Your task to perform on an android device: set default search engine in the chrome app Image 0: 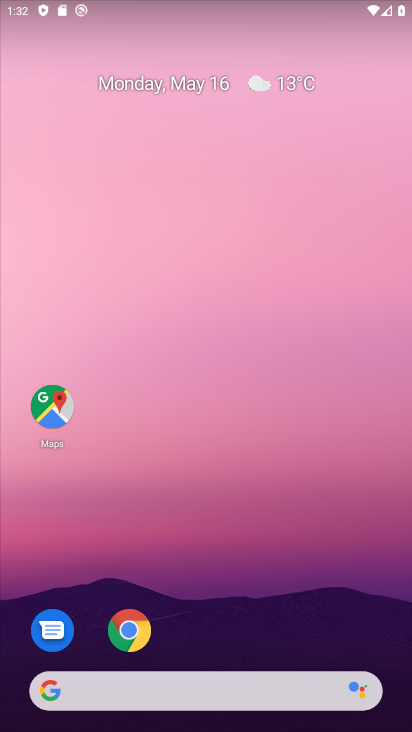
Step 0: click (133, 644)
Your task to perform on an android device: set default search engine in the chrome app Image 1: 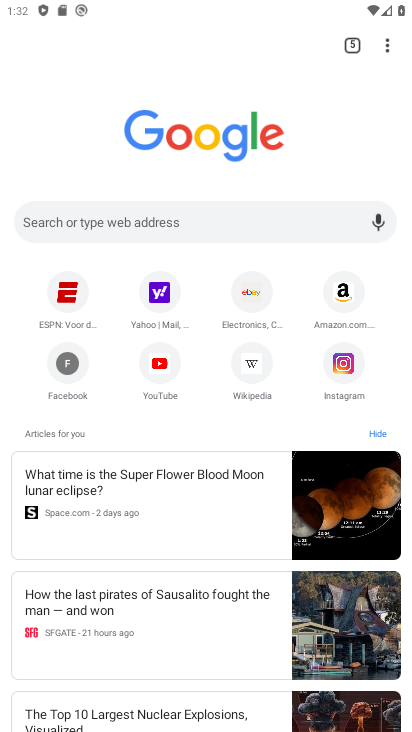
Step 1: click (389, 45)
Your task to perform on an android device: set default search engine in the chrome app Image 2: 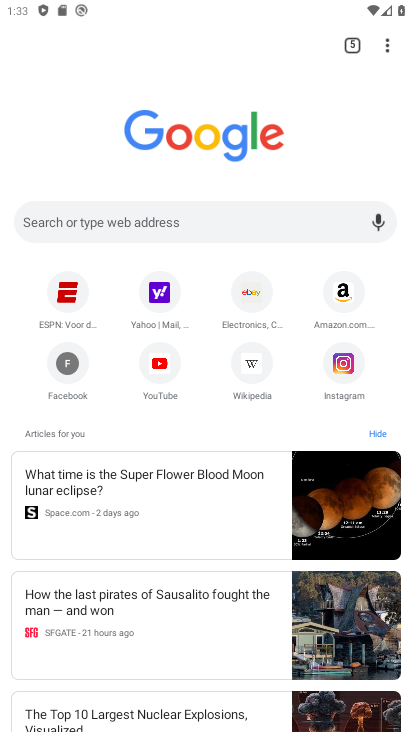
Step 2: click (382, 48)
Your task to perform on an android device: set default search engine in the chrome app Image 3: 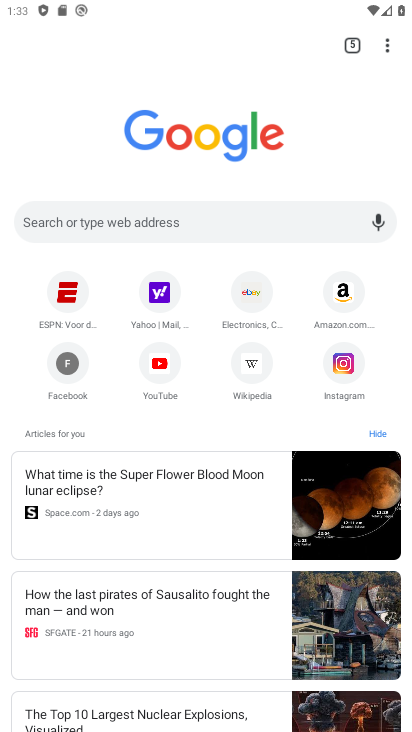
Step 3: click (383, 48)
Your task to perform on an android device: set default search engine in the chrome app Image 4: 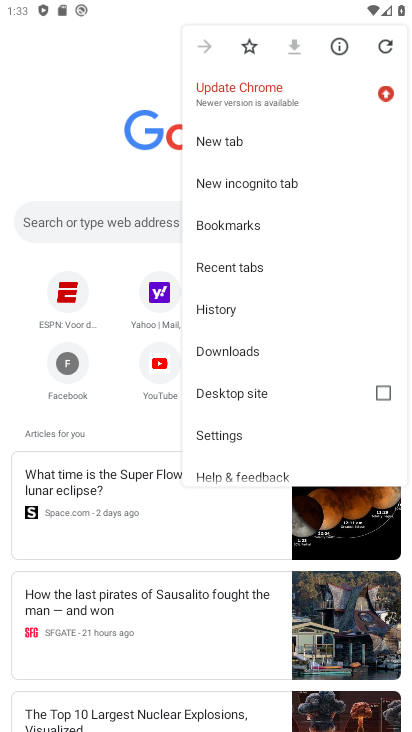
Step 4: click (271, 430)
Your task to perform on an android device: set default search engine in the chrome app Image 5: 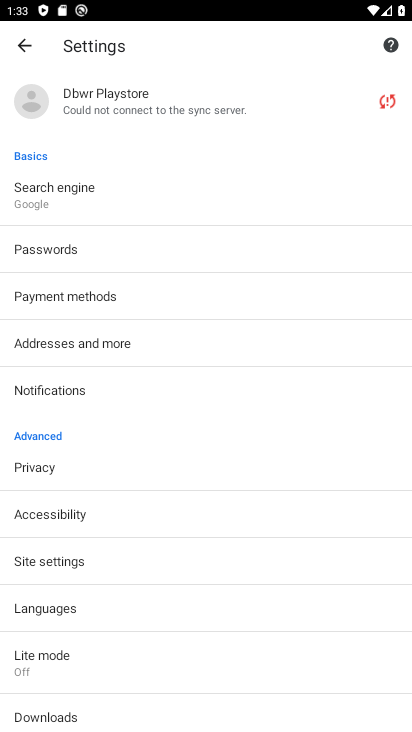
Step 5: drag from (203, 597) to (220, 106)
Your task to perform on an android device: set default search engine in the chrome app Image 6: 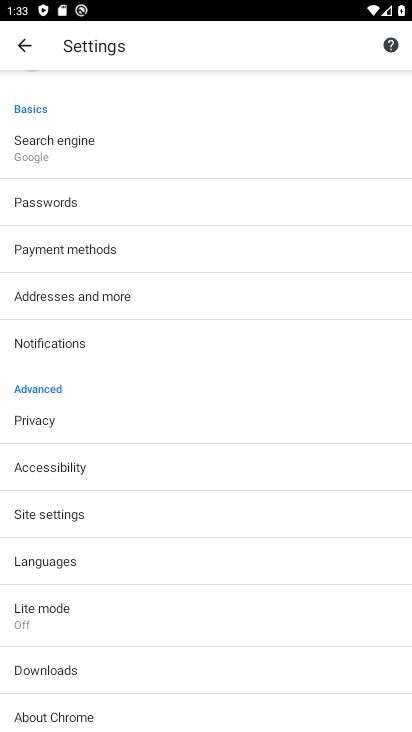
Step 6: click (135, 692)
Your task to perform on an android device: set default search engine in the chrome app Image 7: 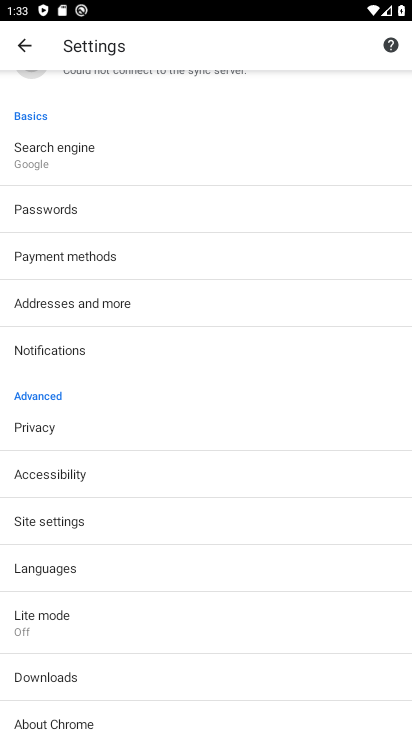
Step 7: click (95, 714)
Your task to perform on an android device: set default search engine in the chrome app Image 8: 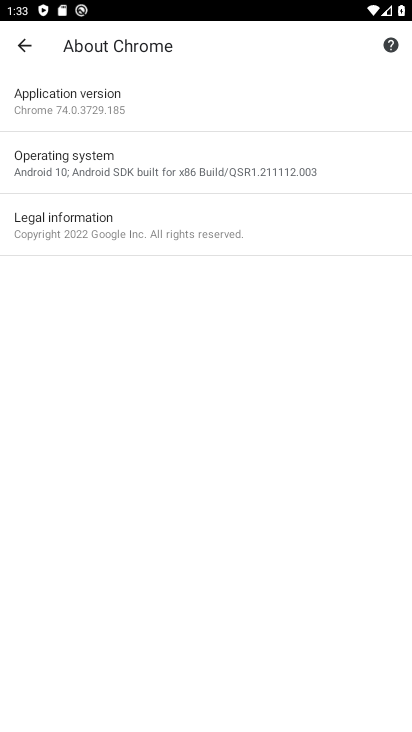
Step 8: press back button
Your task to perform on an android device: set default search engine in the chrome app Image 9: 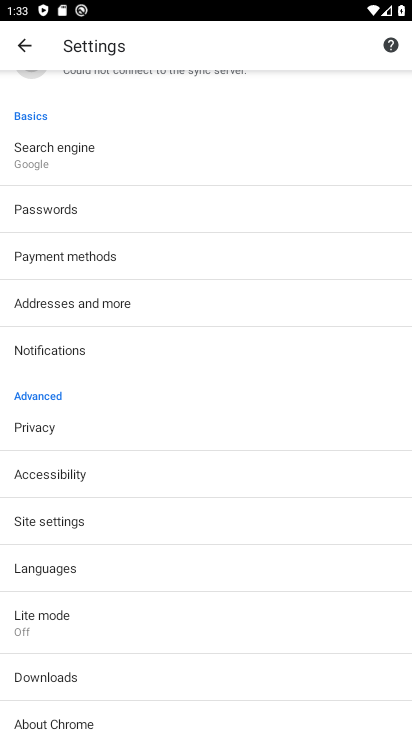
Step 9: click (42, 525)
Your task to perform on an android device: set default search engine in the chrome app Image 10: 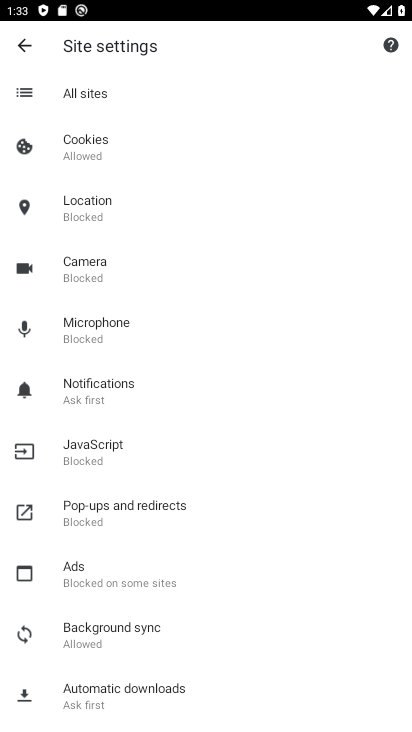
Step 10: task complete